Your task to perform on an android device: check the backup settings in the google photos Image 0: 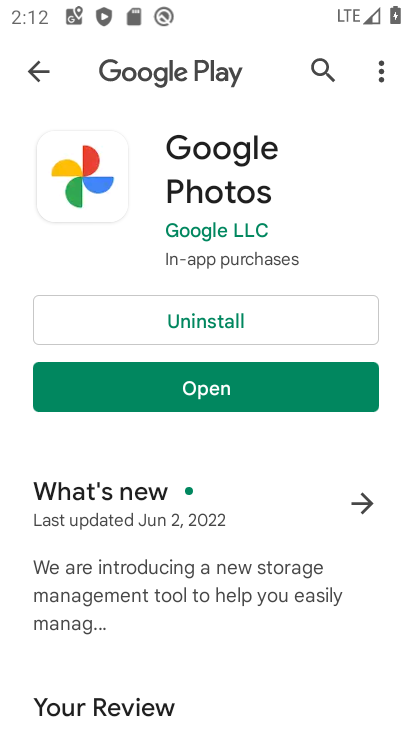
Step 0: press back button
Your task to perform on an android device: check the backup settings in the google photos Image 1: 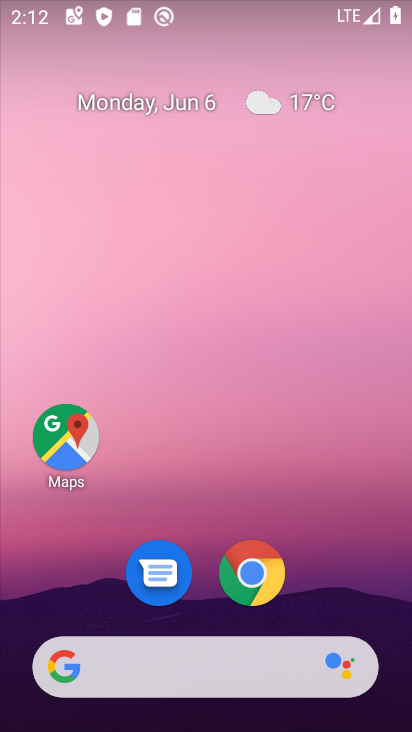
Step 1: drag from (356, 576) to (358, 114)
Your task to perform on an android device: check the backup settings in the google photos Image 2: 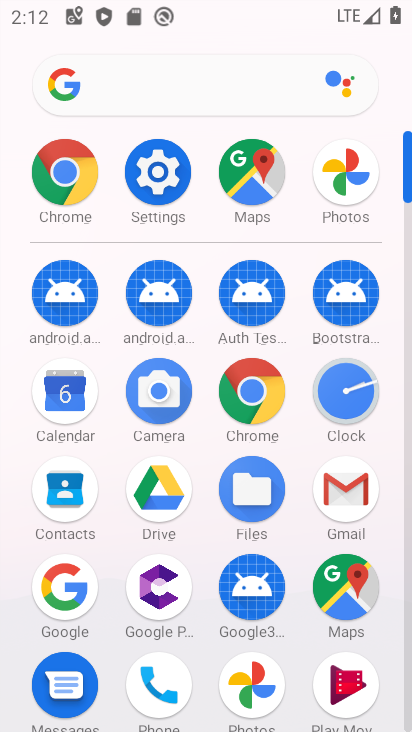
Step 2: click (351, 184)
Your task to perform on an android device: check the backup settings in the google photos Image 3: 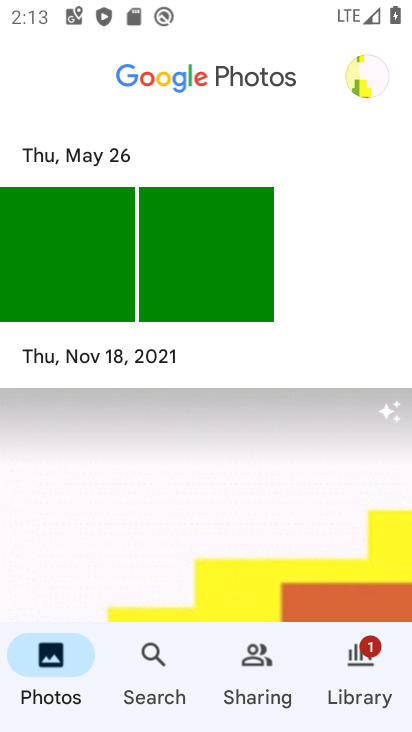
Step 3: click (368, 82)
Your task to perform on an android device: check the backup settings in the google photos Image 4: 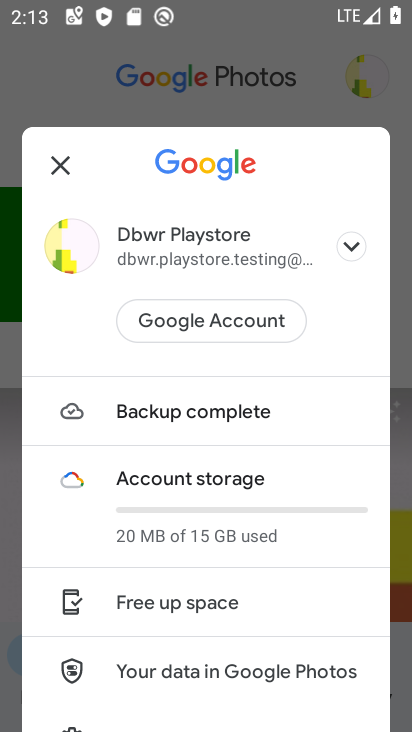
Step 4: drag from (312, 585) to (319, 389)
Your task to perform on an android device: check the backup settings in the google photos Image 5: 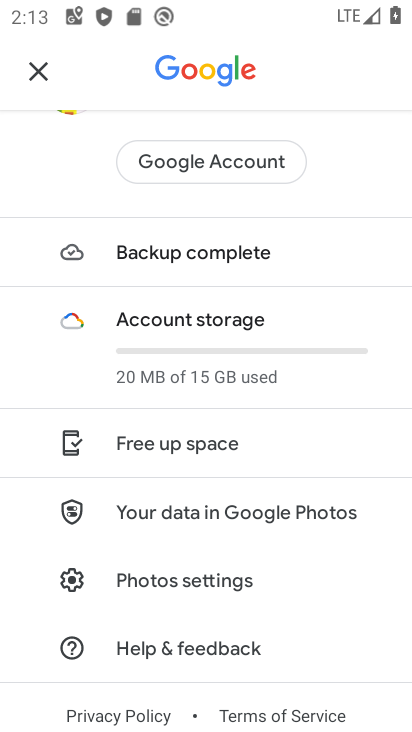
Step 5: click (213, 585)
Your task to perform on an android device: check the backup settings in the google photos Image 6: 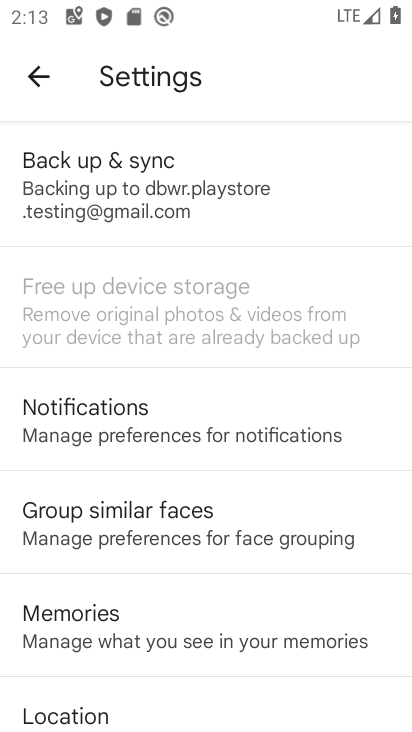
Step 6: drag from (252, 589) to (261, 425)
Your task to perform on an android device: check the backup settings in the google photos Image 7: 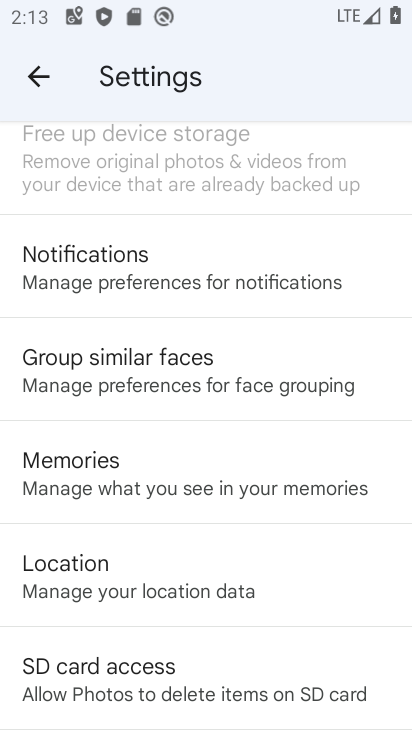
Step 7: drag from (267, 630) to (305, 419)
Your task to perform on an android device: check the backup settings in the google photos Image 8: 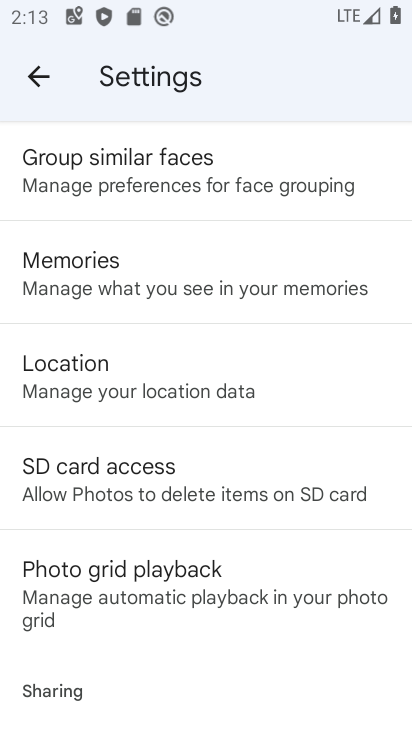
Step 8: drag from (308, 598) to (327, 329)
Your task to perform on an android device: check the backup settings in the google photos Image 9: 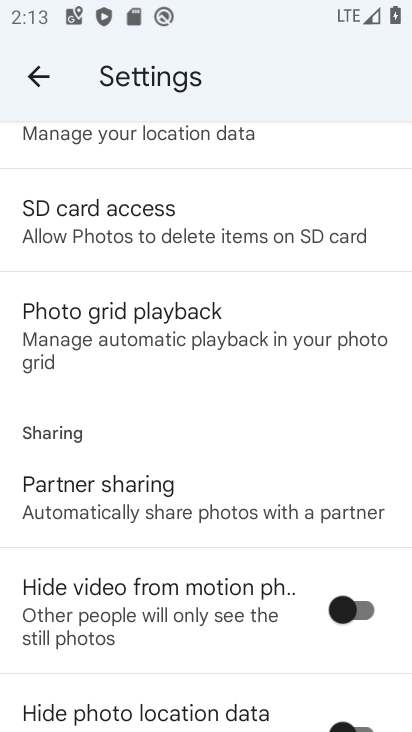
Step 9: drag from (325, 264) to (314, 543)
Your task to perform on an android device: check the backup settings in the google photos Image 10: 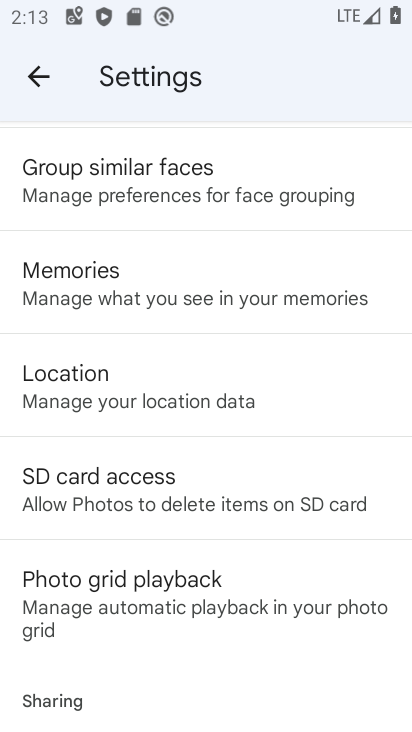
Step 10: drag from (295, 241) to (310, 501)
Your task to perform on an android device: check the backup settings in the google photos Image 11: 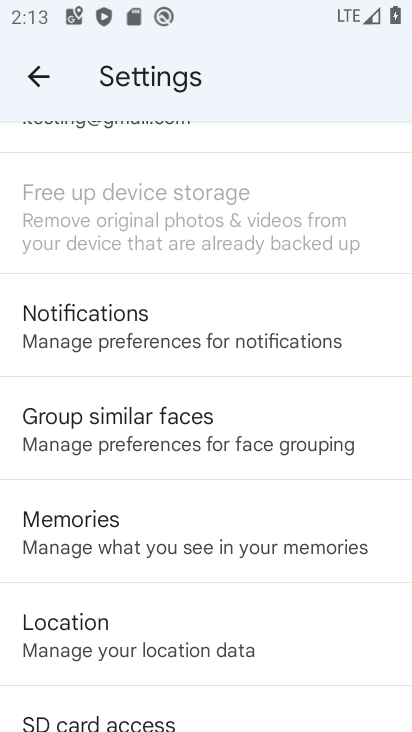
Step 11: drag from (302, 192) to (303, 405)
Your task to perform on an android device: check the backup settings in the google photos Image 12: 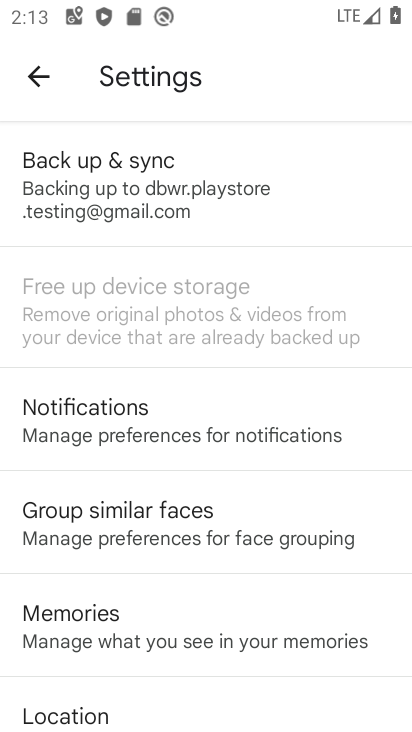
Step 12: click (153, 195)
Your task to perform on an android device: check the backup settings in the google photos Image 13: 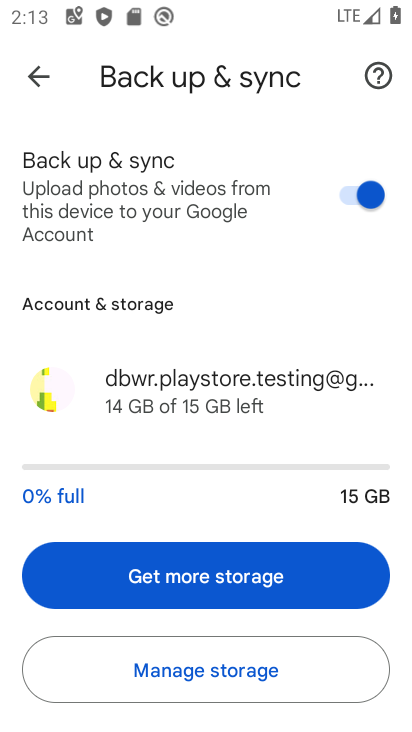
Step 13: task complete